Your task to perform on an android device: install app "Google Calendar" Image 0: 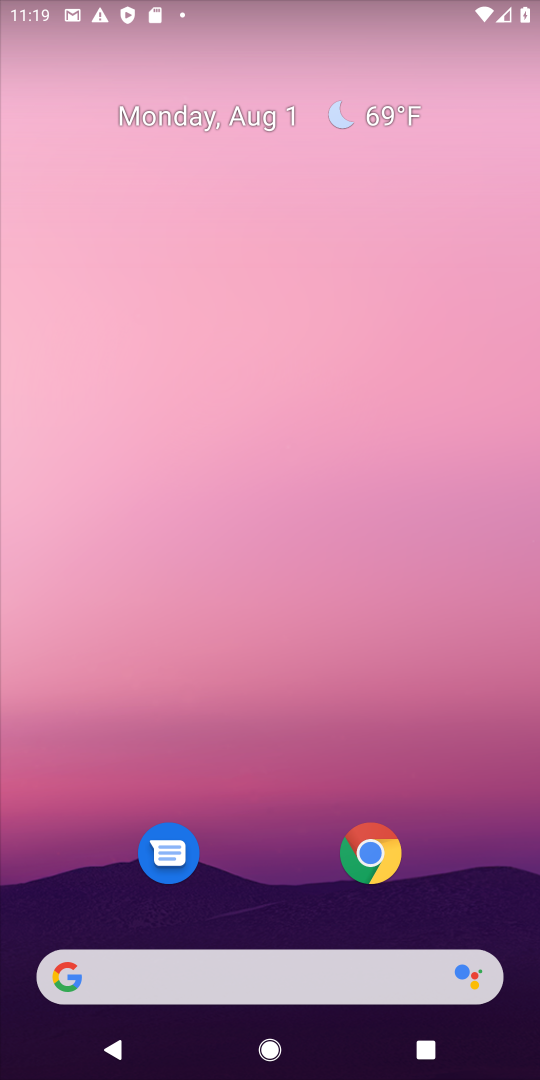
Step 0: press home button
Your task to perform on an android device: install app "Google Calendar" Image 1: 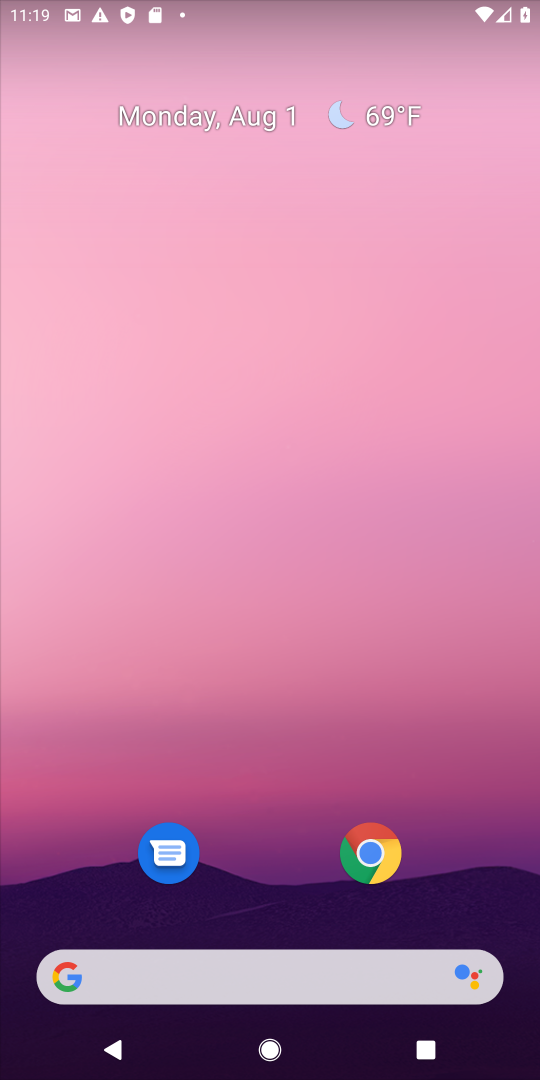
Step 1: drag from (200, 793) to (294, 106)
Your task to perform on an android device: install app "Google Calendar" Image 2: 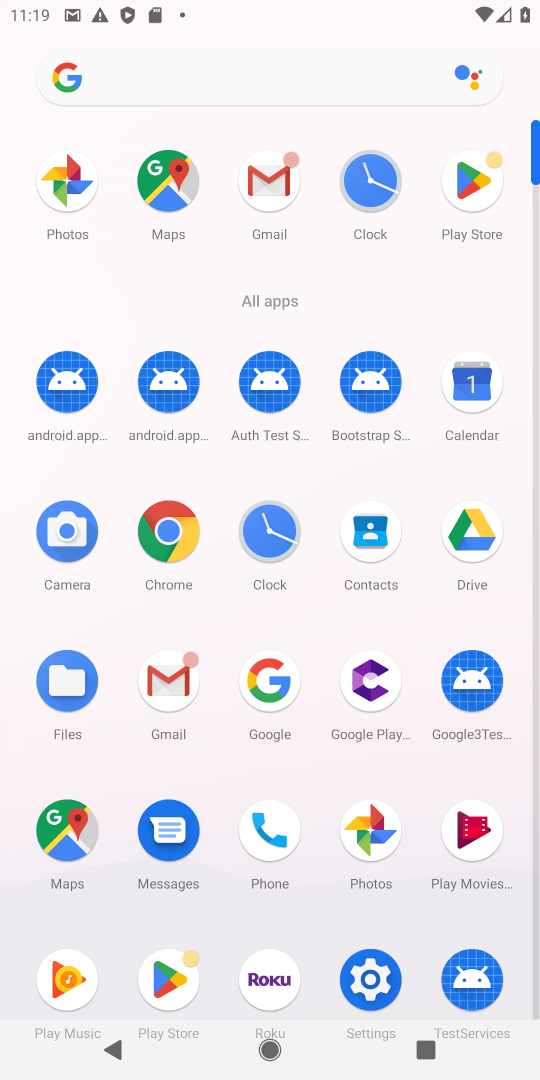
Step 2: click (483, 198)
Your task to perform on an android device: install app "Google Calendar" Image 3: 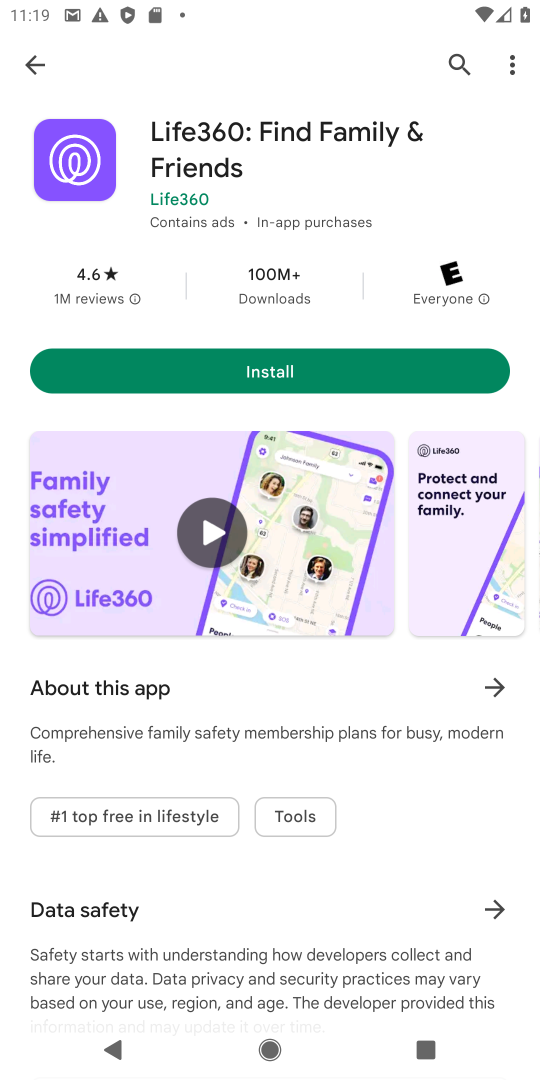
Step 3: click (443, 61)
Your task to perform on an android device: install app "Google Calendar" Image 4: 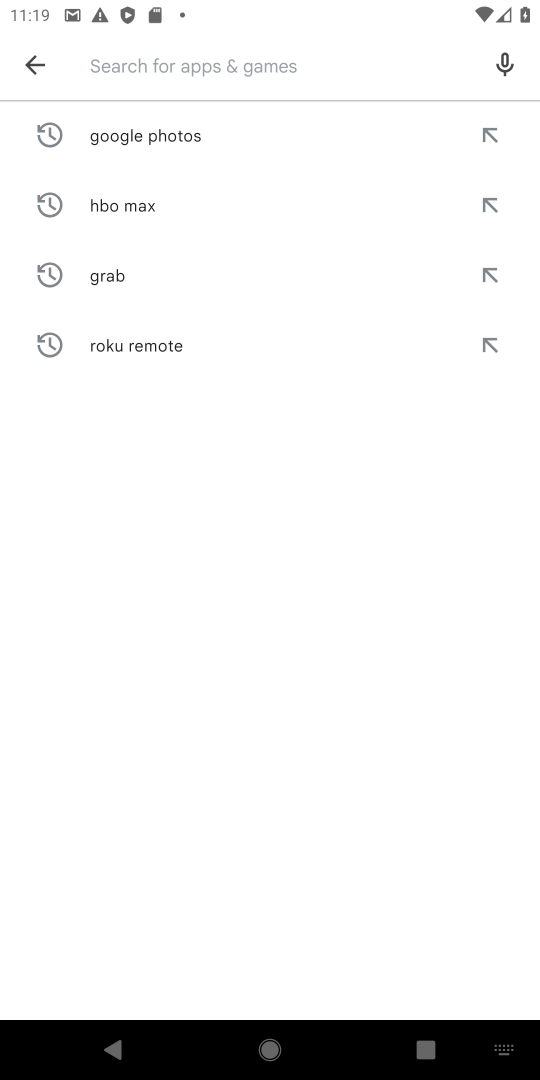
Step 4: click (428, 61)
Your task to perform on an android device: install app "Google Calendar" Image 5: 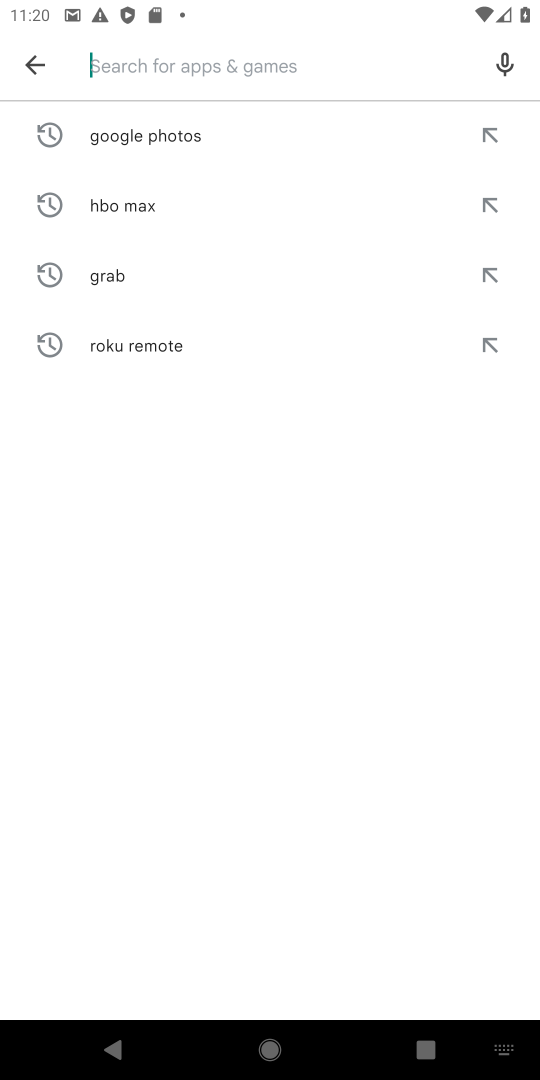
Step 5: type "Google Calendar"
Your task to perform on an android device: install app "Google Calendar" Image 6: 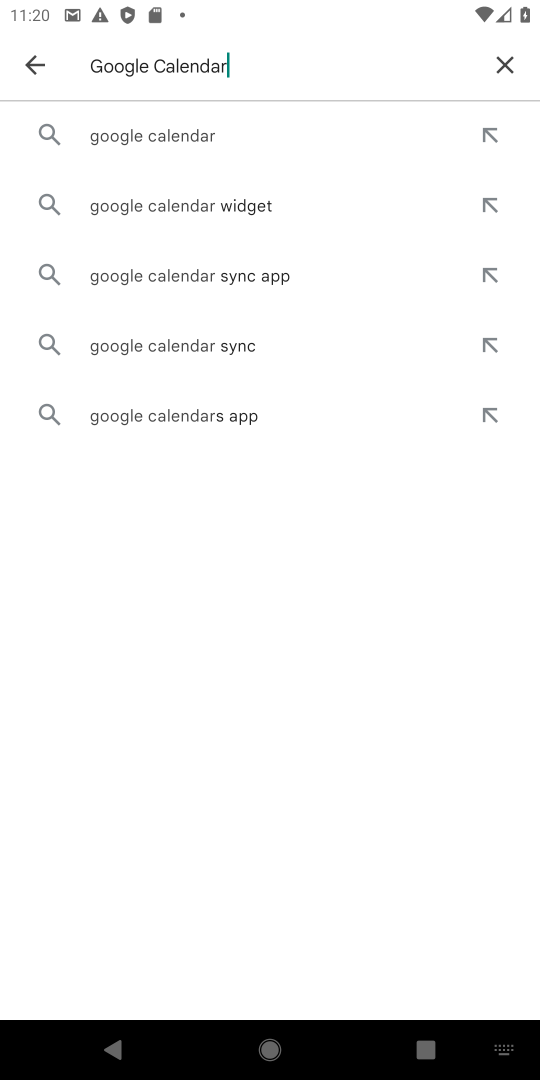
Step 6: click (128, 131)
Your task to perform on an android device: install app "Google Calendar" Image 7: 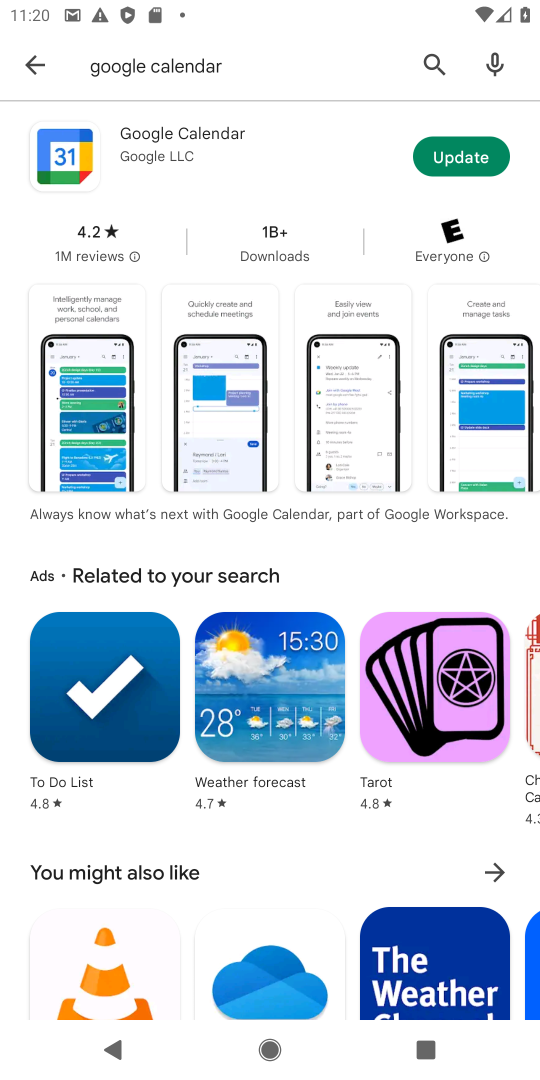
Step 7: click (310, 132)
Your task to perform on an android device: install app "Google Calendar" Image 8: 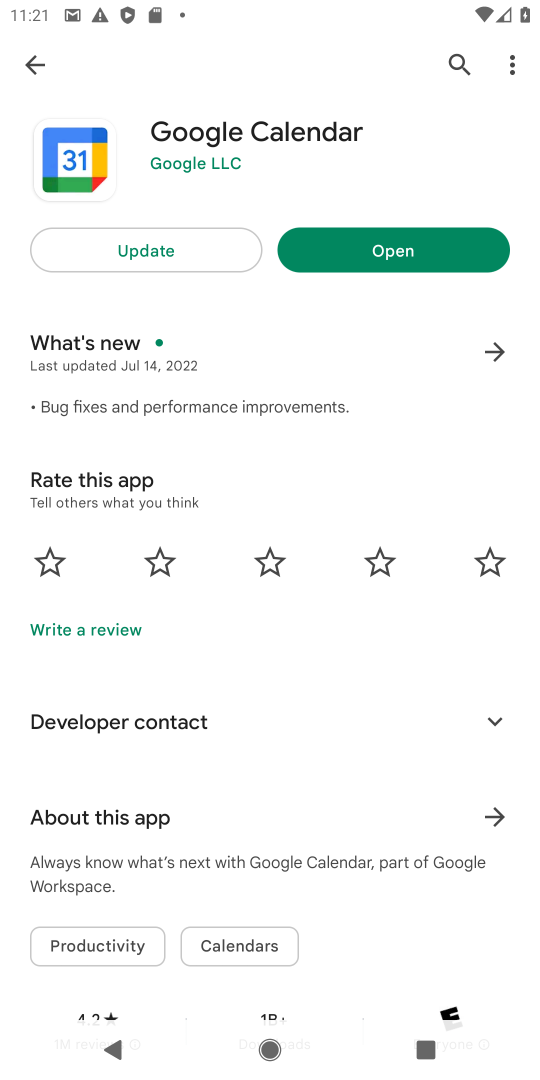
Step 8: task complete